Your task to perform on an android device: Open Maps and search for coffee Image 0: 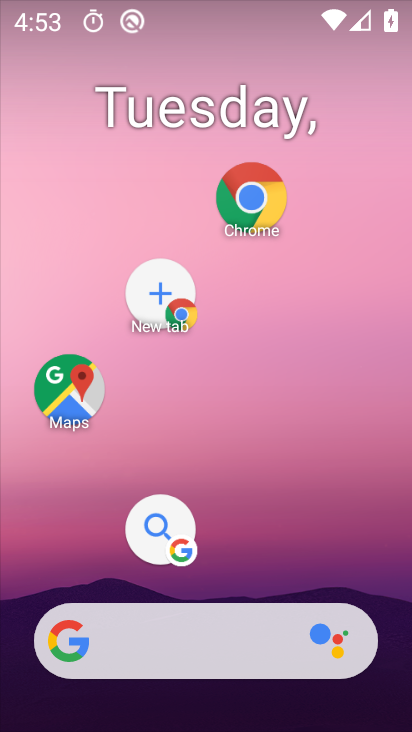
Step 0: click (65, 382)
Your task to perform on an android device: Open Maps and search for coffee Image 1: 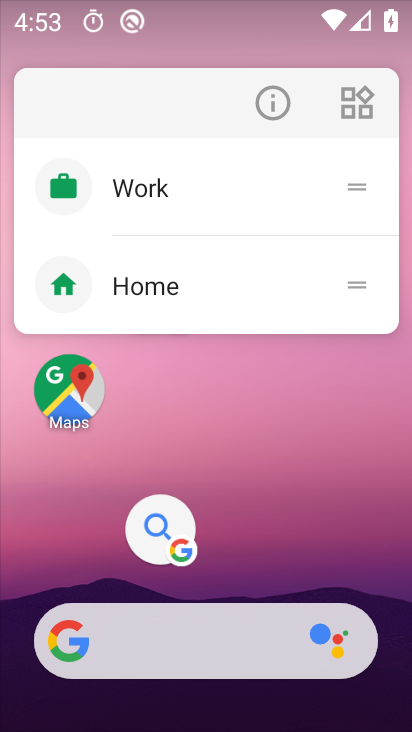
Step 1: click (64, 385)
Your task to perform on an android device: Open Maps and search for coffee Image 2: 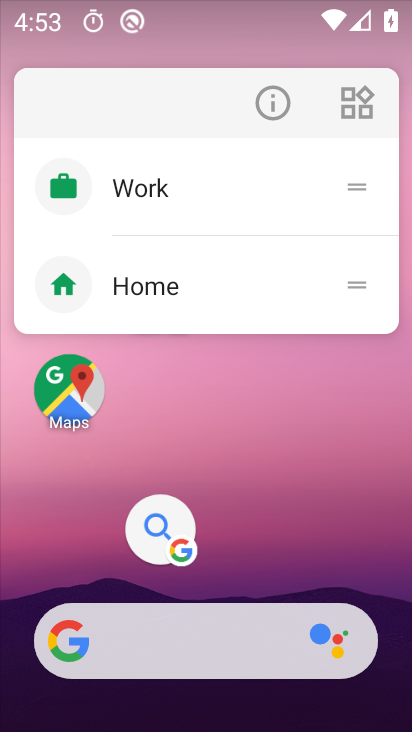
Step 2: click (73, 401)
Your task to perform on an android device: Open Maps and search for coffee Image 3: 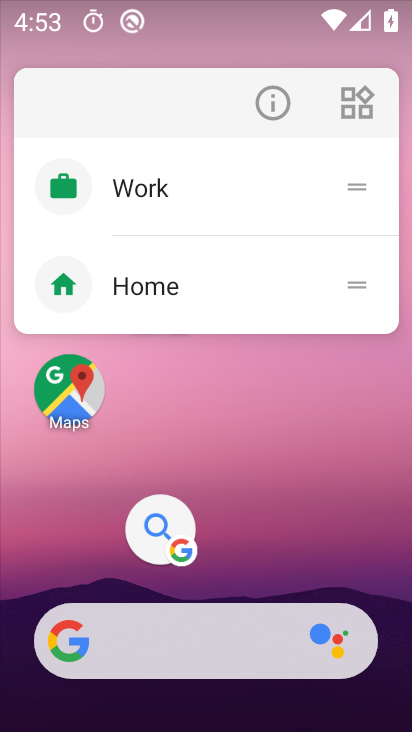
Step 3: click (76, 380)
Your task to perform on an android device: Open Maps and search for coffee Image 4: 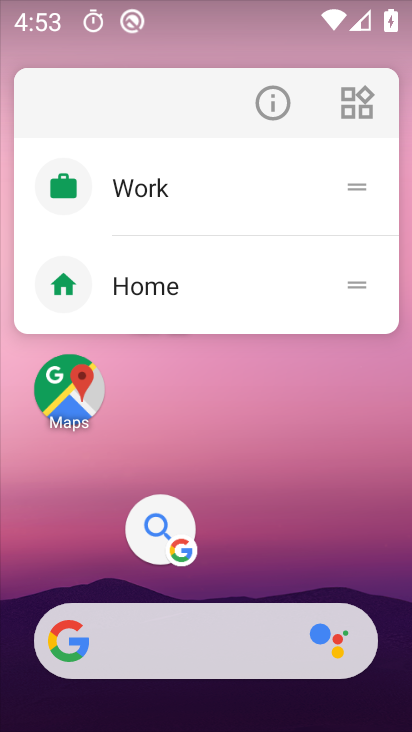
Step 4: click (78, 394)
Your task to perform on an android device: Open Maps and search for coffee Image 5: 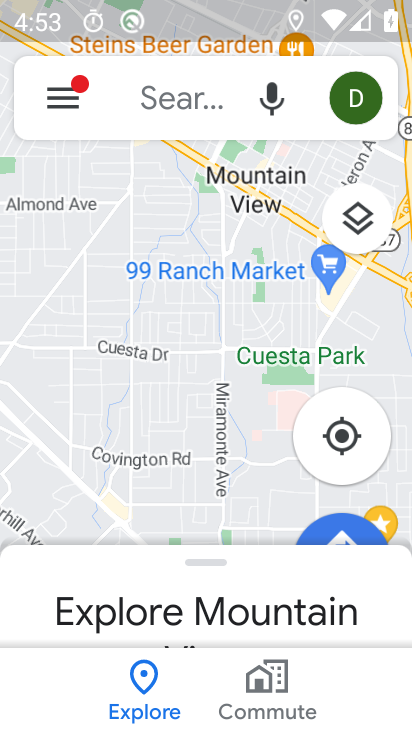
Step 5: click (183, 86)
Your task to perform on an android device: Open Maps and search for coffee Image 6: 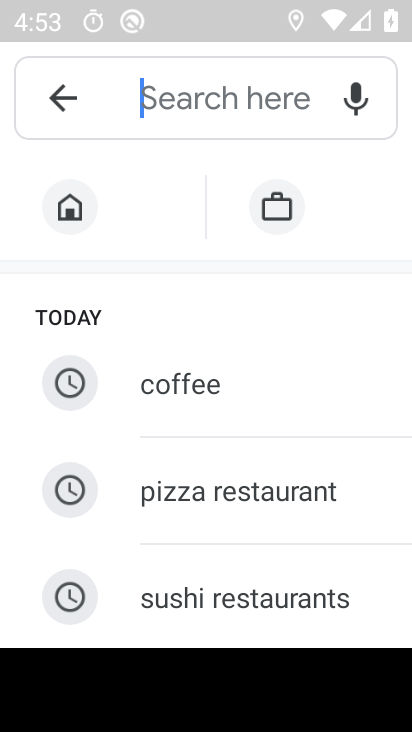
Step 6: click (204, 372)
Your task to perform on an android device: Open Maps and search for coffee Image 7: 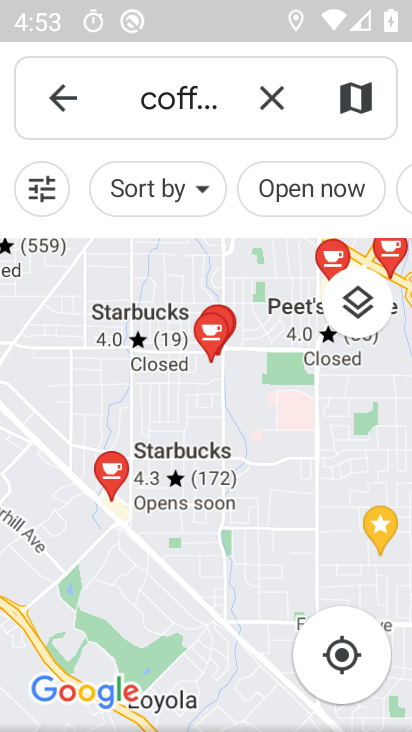
Step 7: task complete